Your task to perform on an android device: toggle notifications settings in the gmail app Image 0: 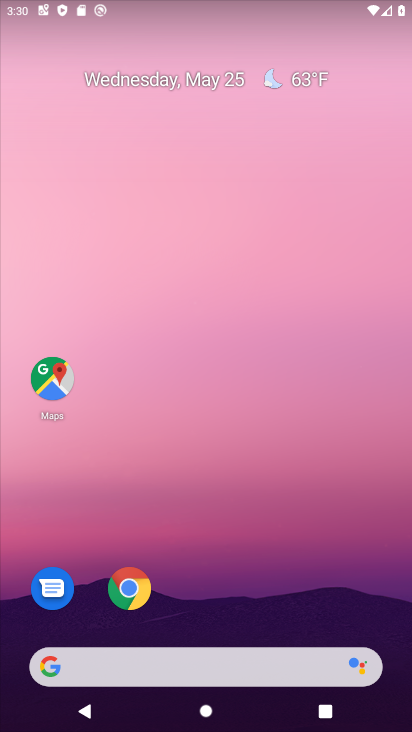
Step 0: drag from (225, 613) to (178, 262)
Your task to perform on an android device: toggle notifications settings in the gmail app Image 1: 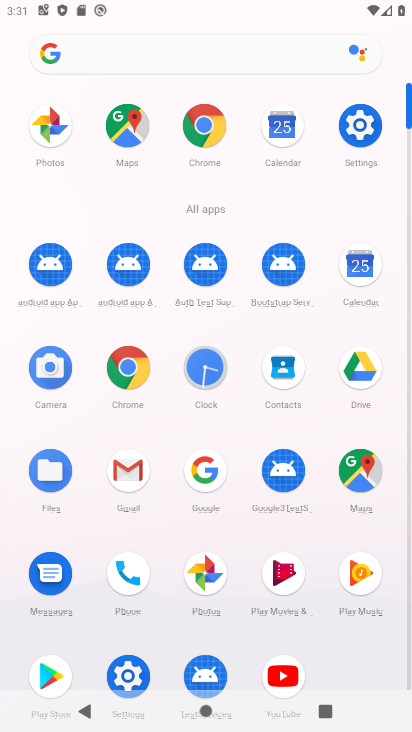
Step 1: click (133, 459)
Your task to perform on an android device: toggle notifications settings in the gmail app Image 2: 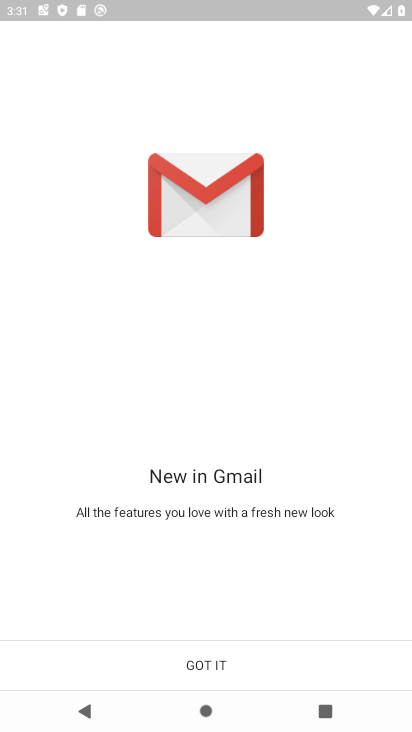
Step 2: click (224, 659)
Your task to perform on an android device: toggle notifications settings in the gmail app Image 3: 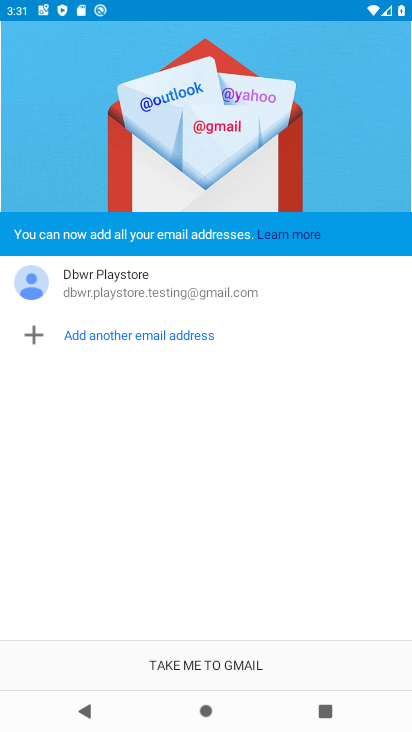
Step 3: click (224, 659)
Your task to perform on an android device: toggle notifications settings in the gmail app Image 4: 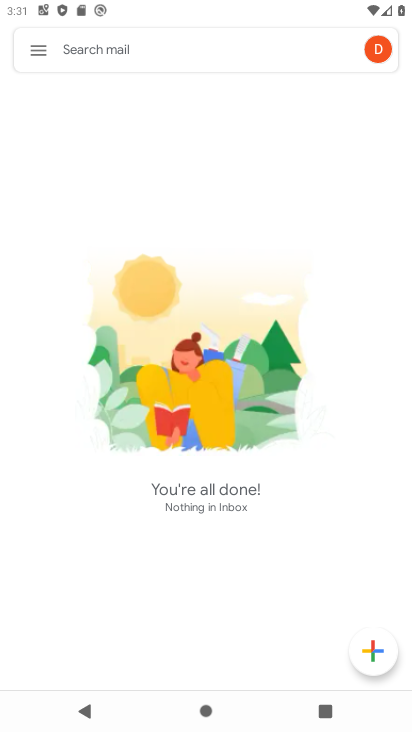
Step 4: click (38, 48)
Your task to perform on an android device: toggle notifications settings in the gmail app Image 5: 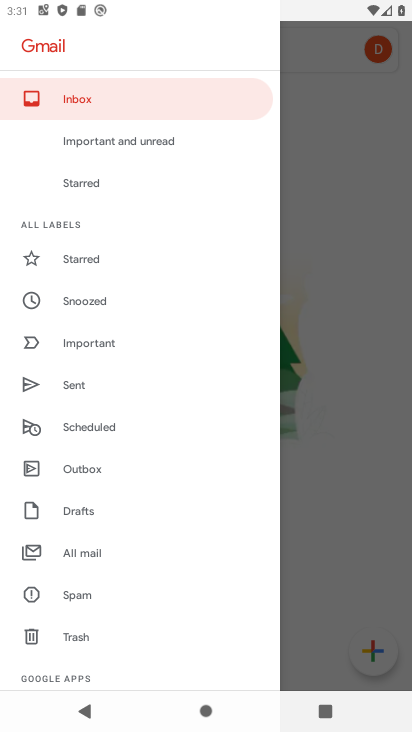
Step 5: drag from (102, 667) to (62, 360)
Your task to perform on an android device: toggle notifications settings in the gmail app Image 6: 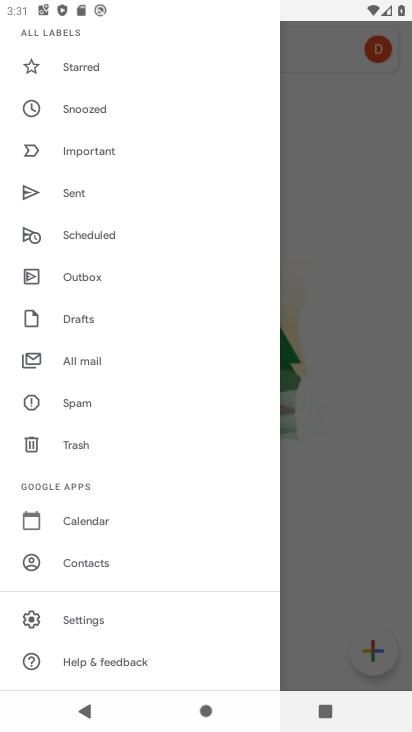
Step 6: click (87, 615)
Your task to perform on an android device: toggle notifications settings in the gmail app Image 7: 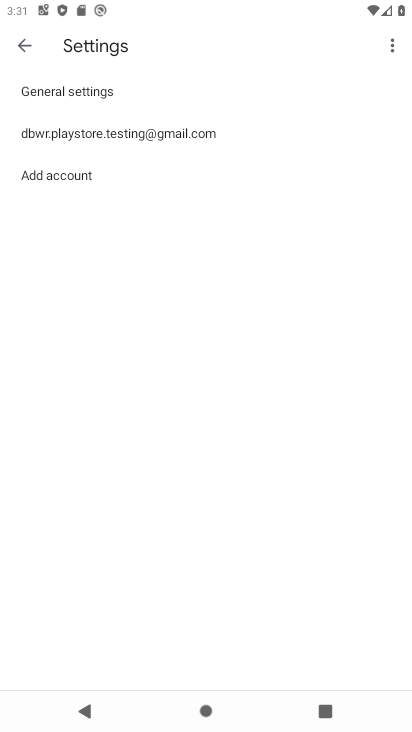
Step 7: click (203, 132)
Your task to perform on an android device: toggle notifications settings in the gmail app Image 8: 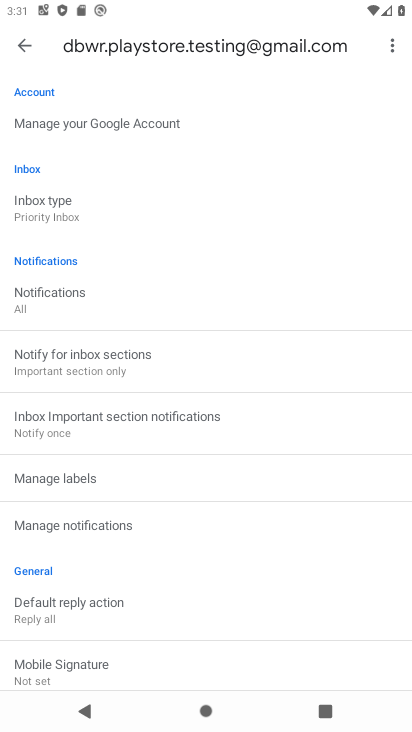
Step 8: drag from (163, 677) to (119, 363)
Your task to perform on an android device: toggle notifications settings in the gmail app Image 9: 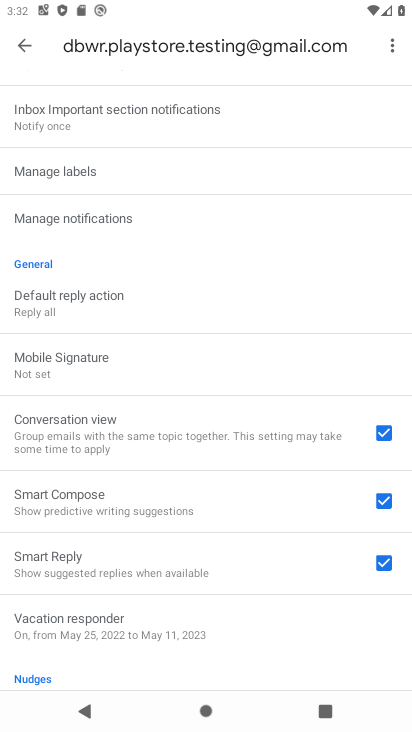
Step 9: click (122, 395)
Your task to perform on an android device: toggle notifications settings in the gmail app Image 10: 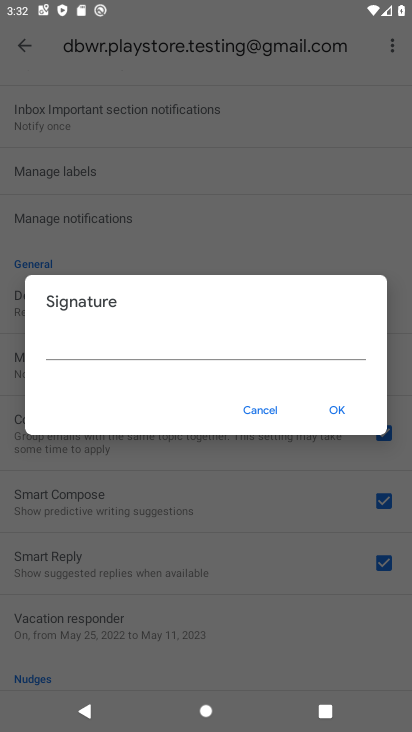
Step 10: click (261, 424)
Your task to perform on an android device: toggle notifications settings in the gmail app Image 11: 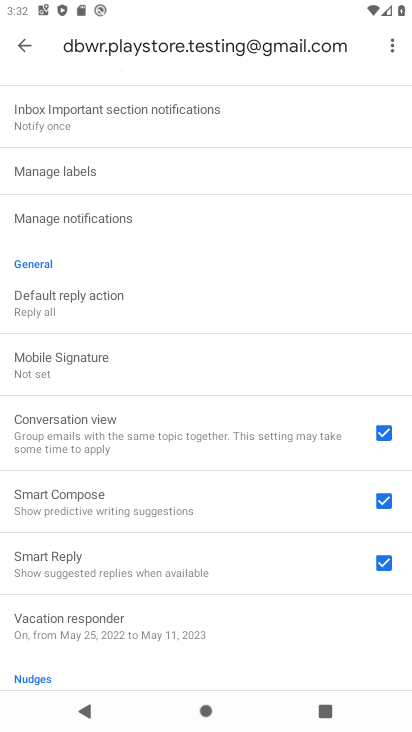
Step 11: click (95, 218)
Your task to perform on an android device: toggle notifications settings in the gmail app Image 12: 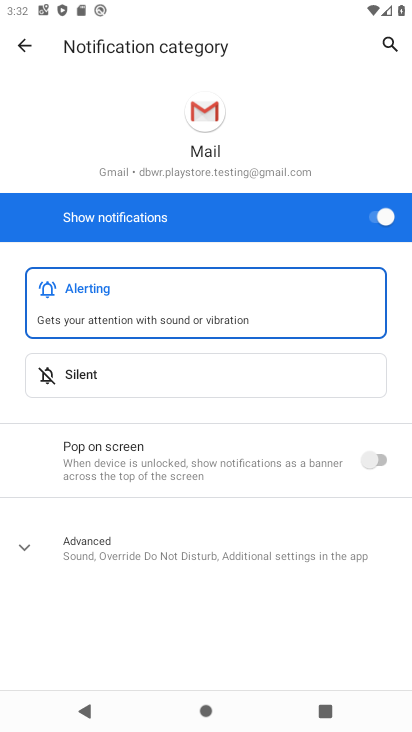
Step 12: click (364, 361)
Your task to perform on an android device: toggle notifications settings in the gmail app Image 13: 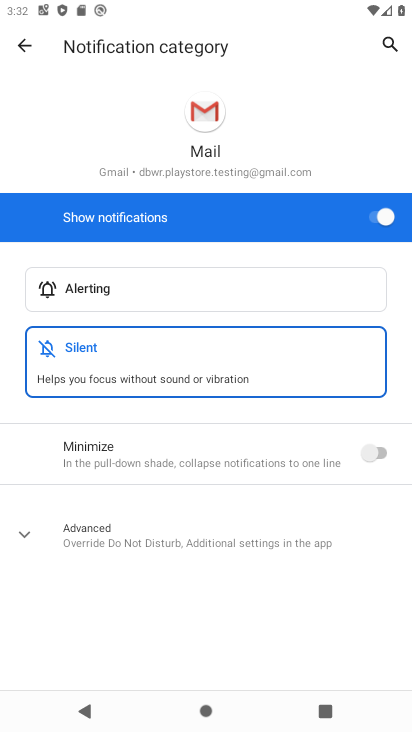
Step 13: click (379, 458)
Your task to perform on an android device: toggle notifications settings in the gmail app Image 14: 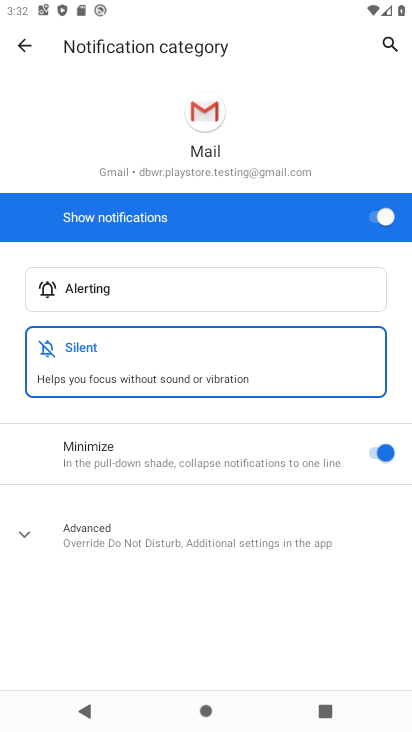
Step 14: task complete